Your task to perform on an android device: Open wifi settings Image 0: 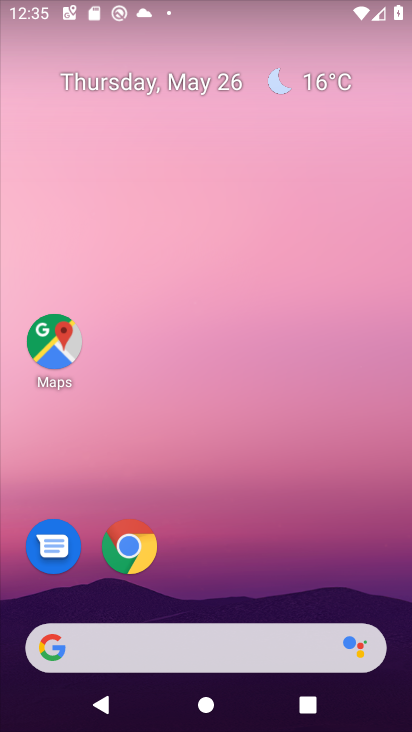
Step 0: drag from (182, 523) to (182, 221)
Your task to perform on an android device: Open wifi settings Image 1: 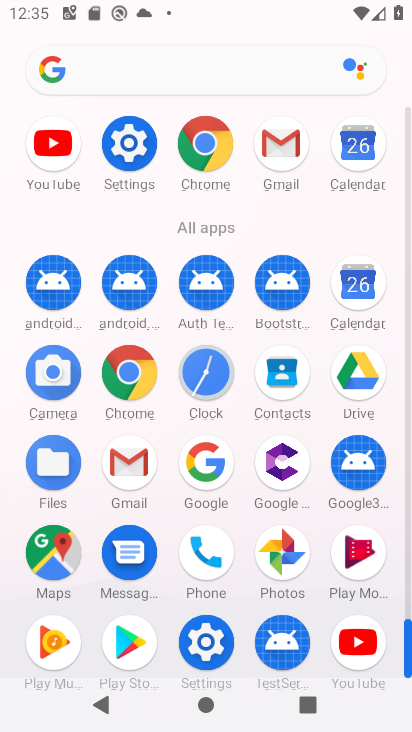
Step 1: click (125, 139)
Your task to perform on an android device: Open wifi settings Image 2: 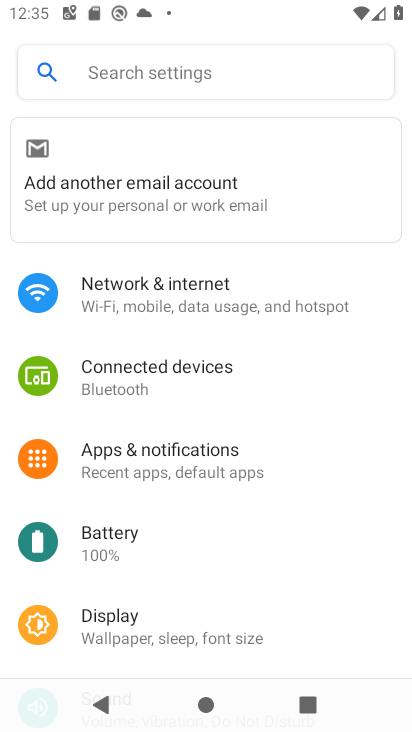
Step 2: click (92, 299)
Your task to perform on an android device: Open wifi settings Image 3: 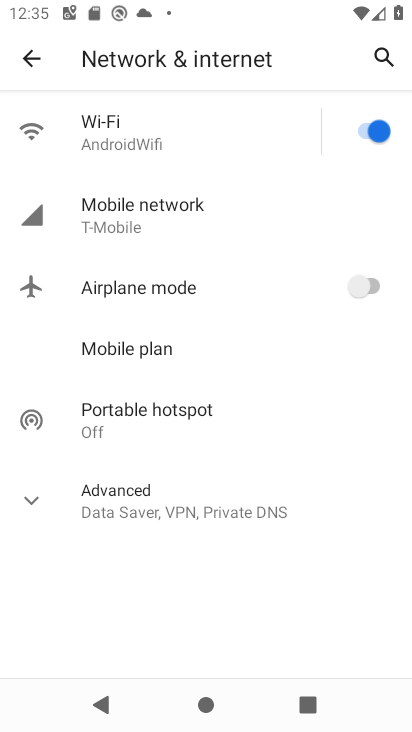
Step 3: click (103, 133)
Your task to perform on an android device: Open wifi settings Image 4: 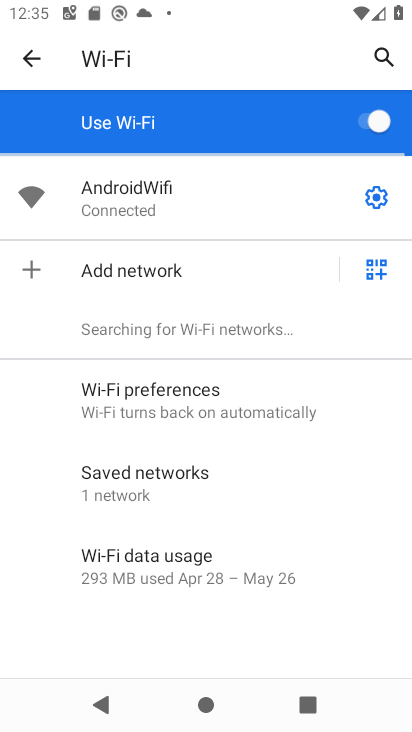
Step 4: task complete